Your task to perform on an android device: Show me the alarms in the clock app Image 0: 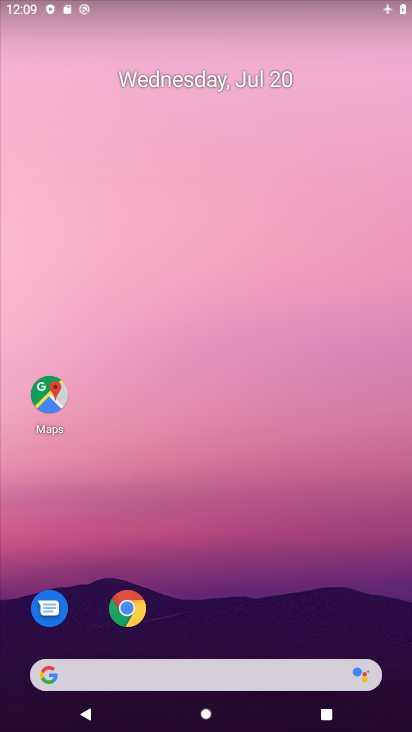
Step 0: drag from (201, 680) to (236, 134)
Your task to perform on an android device: Show me the alarms in the clock app Image 1: 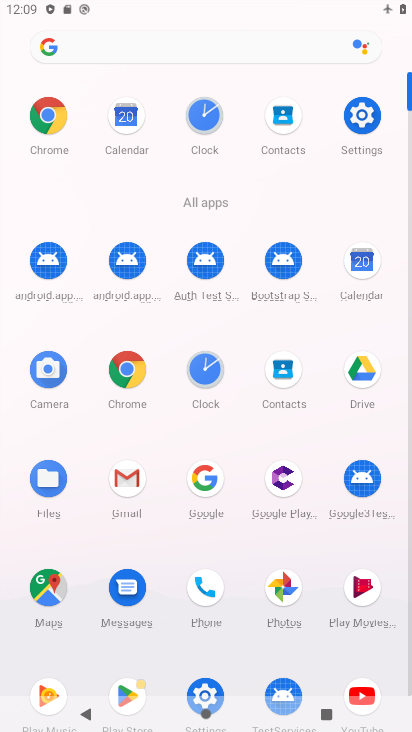
Step 1: click (202, 116)
Your task to perform on an android device: Show me the alarms in the clock app Image 2: 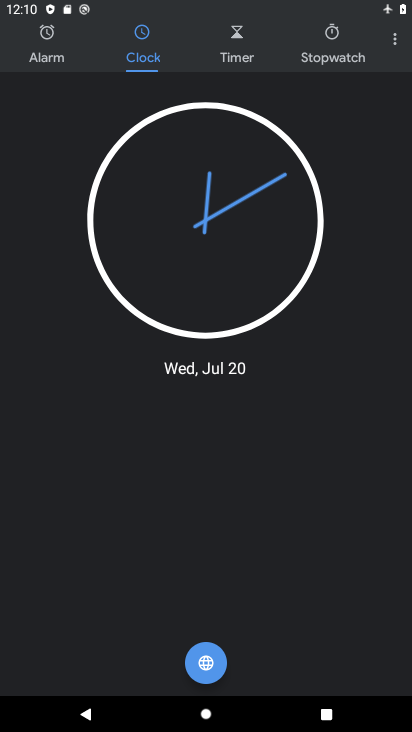
Step 2: click (48, 39)
Your task to perform on an android device: Show me the alarms in the clock app Image 3: 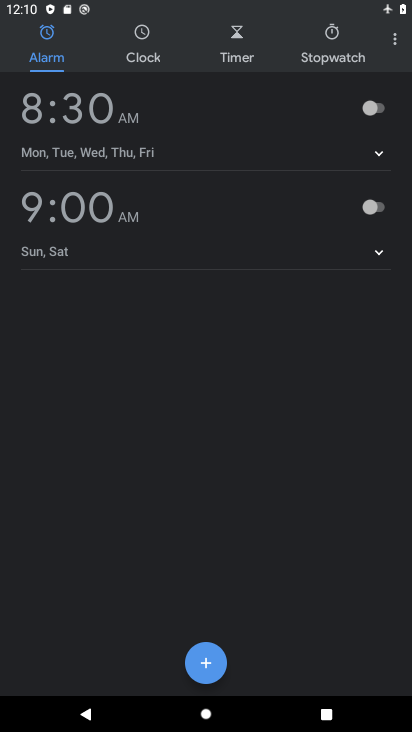
Step 3: click (206, 662)
Your task to perform on an android device: Show me the alarms in the clock app Image 4: 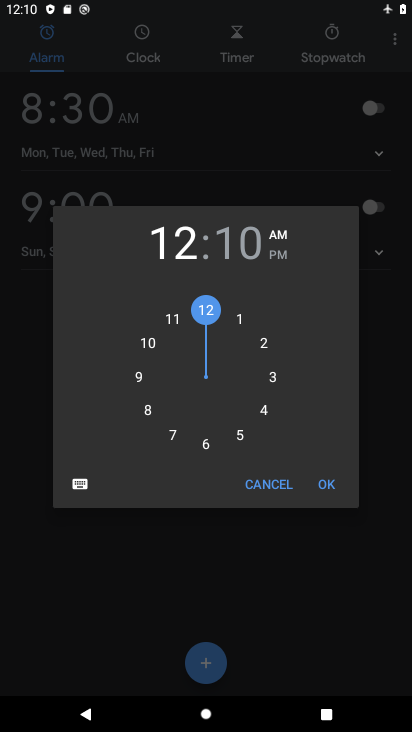
Step 4: click (207, 444)
Your task to perform on an android device: Show me the alarms in the clock app Image 5: 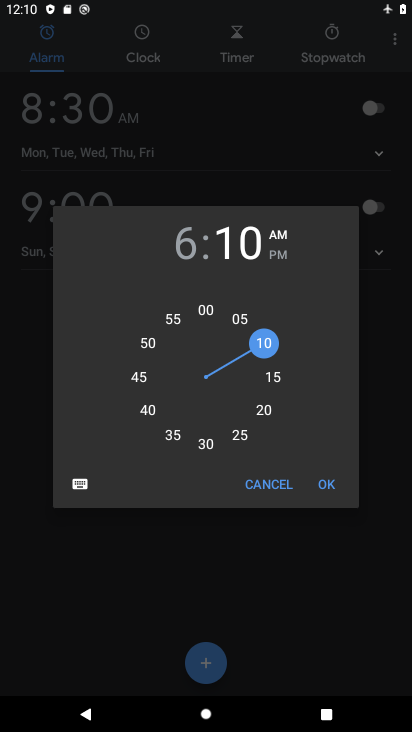
Step 5: click (145, 380)
Your task to perform on an android device: Show me the alarms in the clock app Image 6: 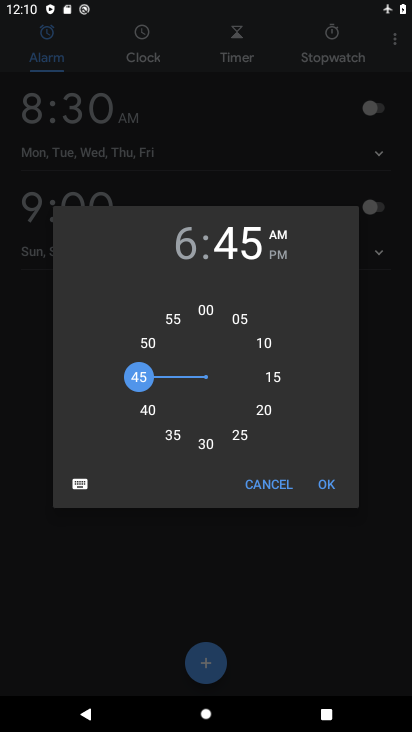
Step 6: click (275, 254)
Your task to perform on an android device: Show me the alarms in the clock app Image 7: 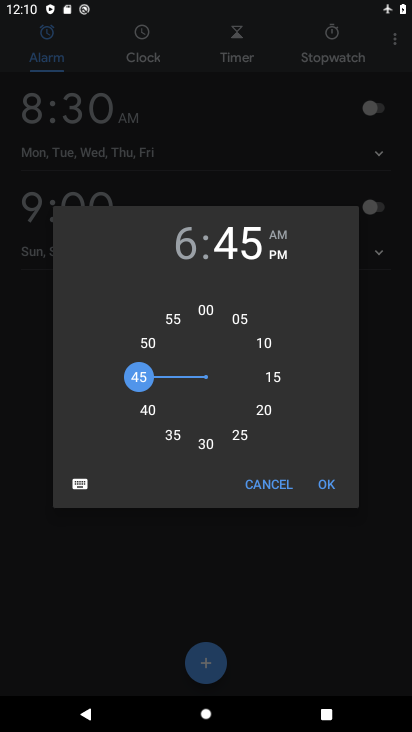
Step 7: click (327, 483)
Your task to perform on an android device: Show me the alarms in the clock app Image 8: 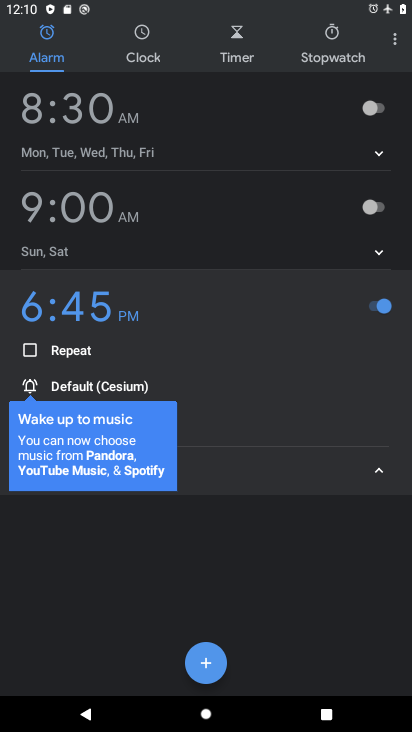
Step 8: click (380, 473)
Your task to perform on an android device: Show me the alarms in the clock app Image 9: 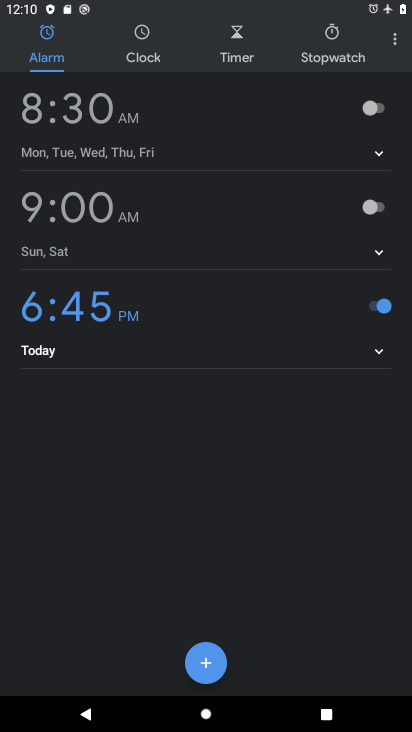
Step 9: task complete